Your task to perform on an android device: change text size in settings app Image 0: 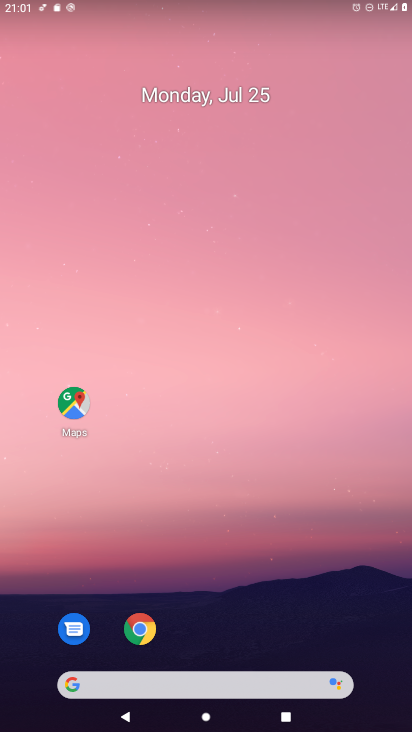
Step 0: drag from (195, 689) to (232, 104)
Your task to perform on an android device: change text size in settings app Image 1: 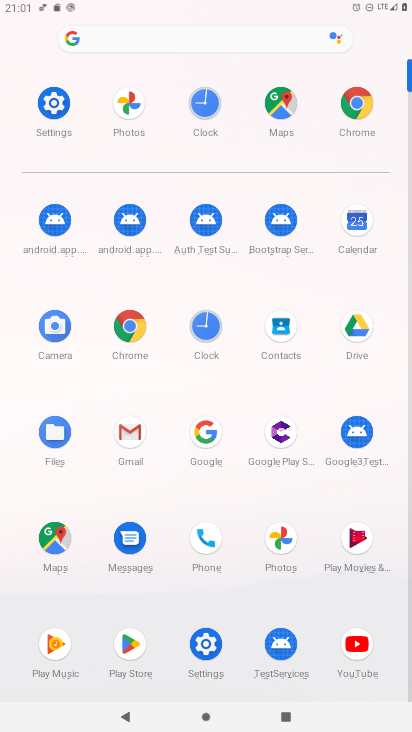
Step 1: click (55, 101)
Your task to perform on an android device: change text size in settings app Image 2: 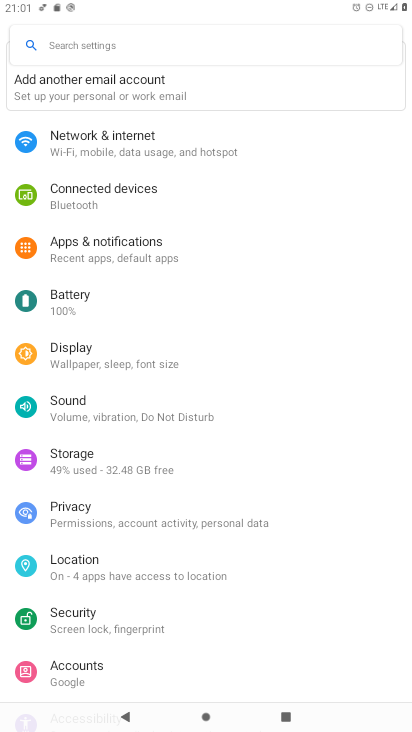
Step 2: drag from (118, 536) to (169, 467)
Your task to perform on an android device: change text size in settings app Image 3: 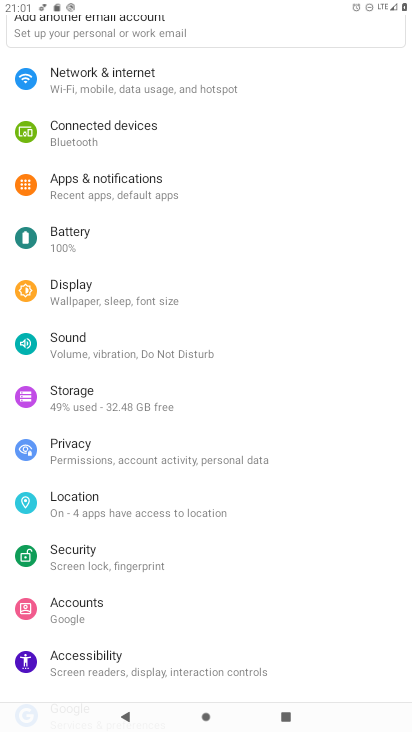
Step 3: drag from (155, 583) to (190, 500)
Your task to perform on an android device: change text size in settings app Image 4: 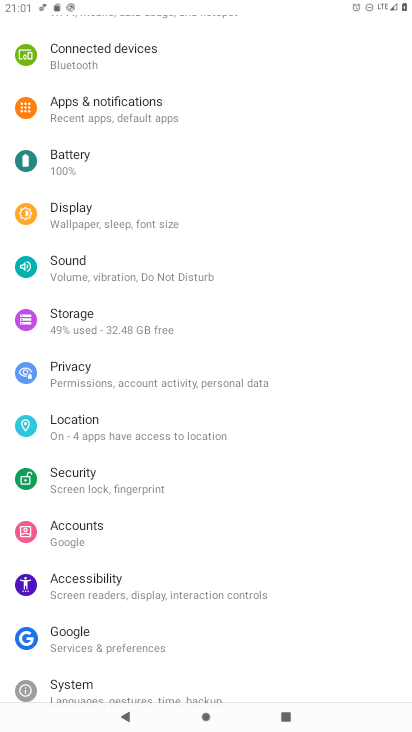
Step 4: drag from (164, 548) to (211, 478)
Your task to perform on an android device: change text size in settings app Image 5: 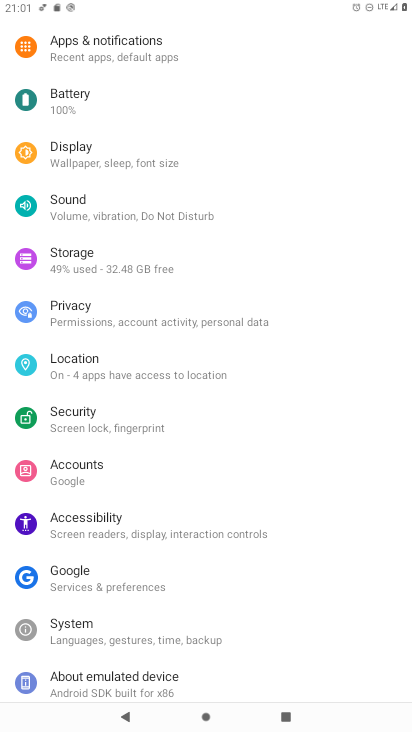
Step 5: click (159, 522)
Your task to perform on an android device: change text size in settings app Image 6: 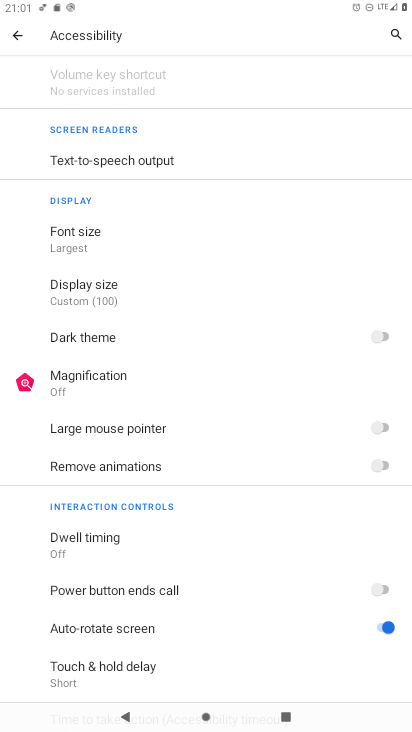
Step 6: click (116, 254)
Your task to perform on an android device: change text size in settings app Image 7: 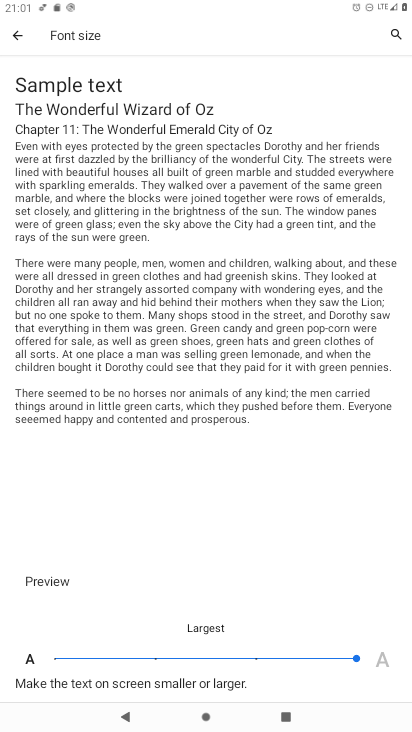
Step 7: click (259, 652)
Your task to perform on an android device: change text size in settings app Image 8: 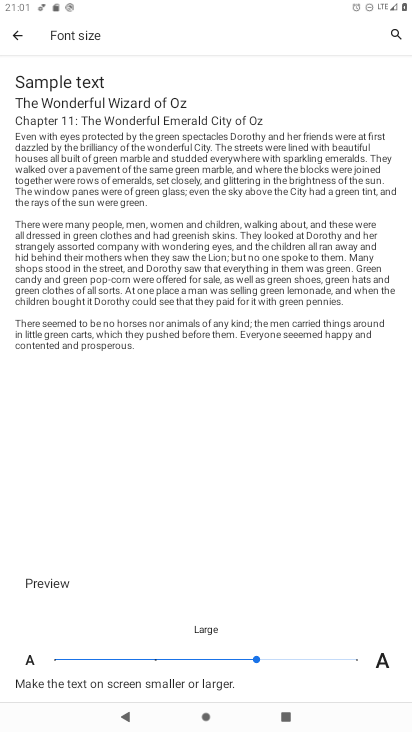
Step 8: task complete